Your task to perform on an android device: Go to calendar. Show me events next week Image 0: 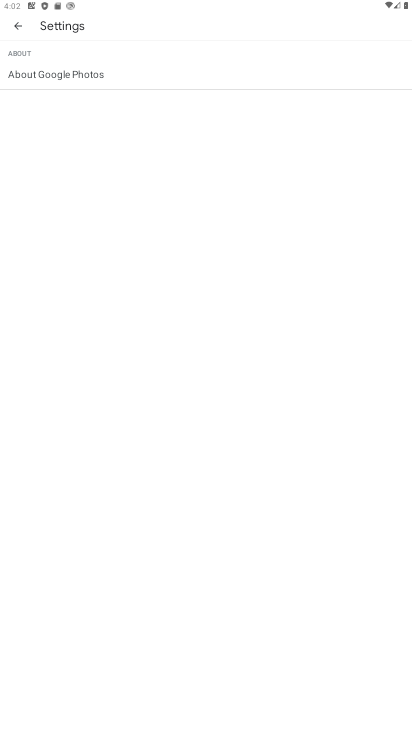
Step 0: press home button
Your task to perform on an android device: Go to calendar. Show me events next week Image 1: 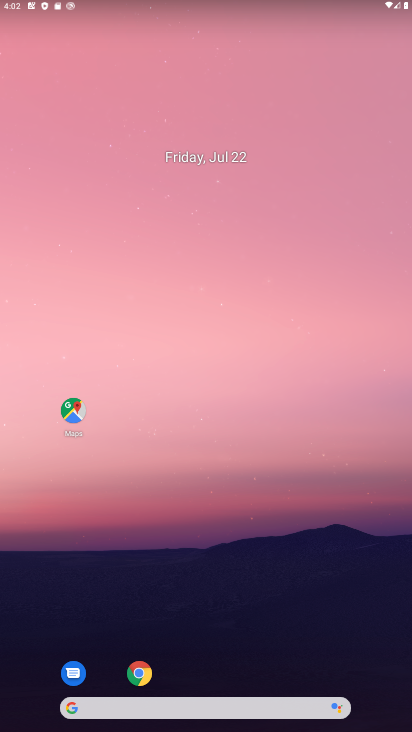
Step 1: drag from (260, 355) to (277, 0)
Your task to perform on an android device: Go to calendar. Show me events next week Image 2: 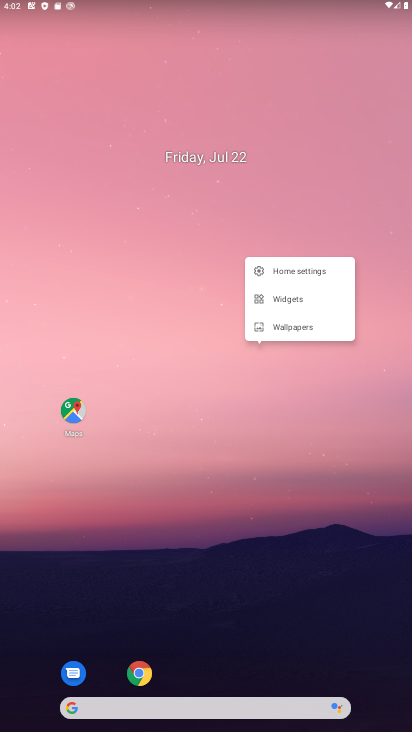
Step 2: click (208, 652)
Your task to perform on an android device: Go to calendar. Show me events next week Image 3: 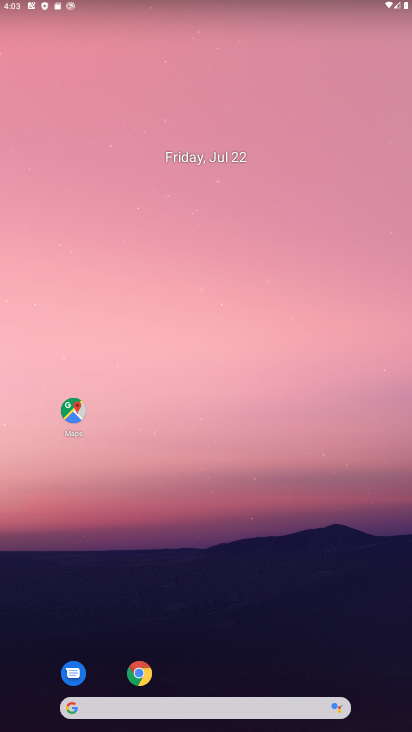
Step 3: drag from (207, 664) to (234, 102)
Your task to perform on an android device: Go to calendar. Show me events next week Image 4: 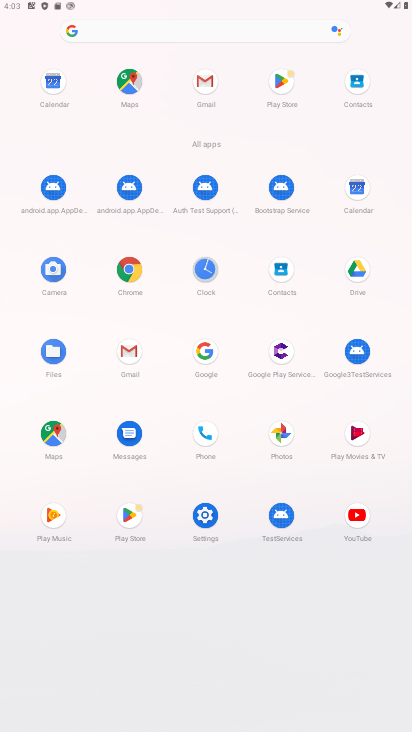
Step 4: click (328, 517)
Your task to perform on an android device: Go to calendar. Show me events next week Image 5: 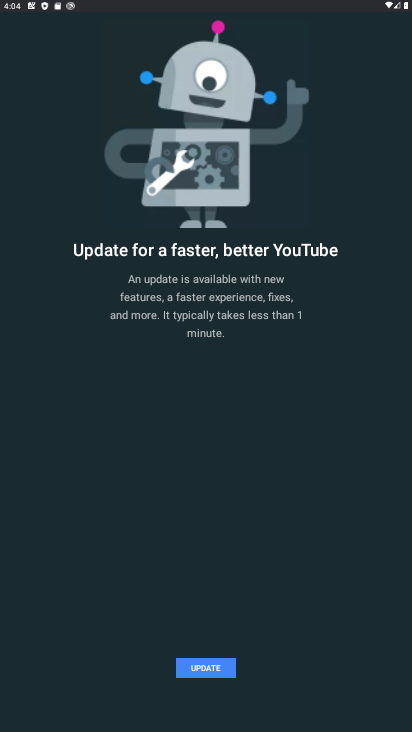
Step 5: press home button
Your task to perform on an android device: Go to calendar. Show me events next week Image 6: 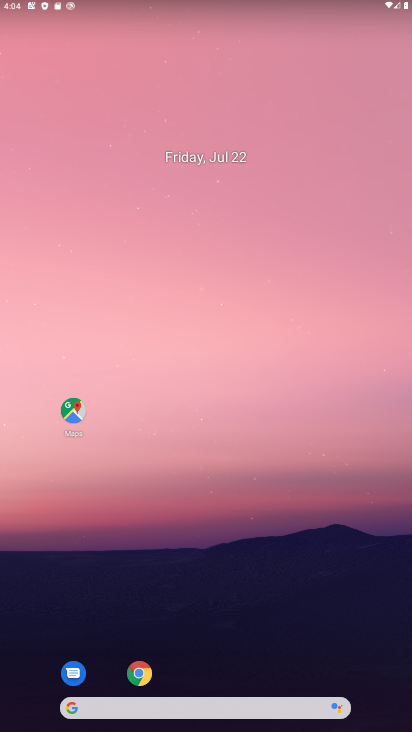
Step 6: drag from (214, 641) to (197, 156)
Your task to perform on an android device: Go to calendar. Show me events next week Image 7: 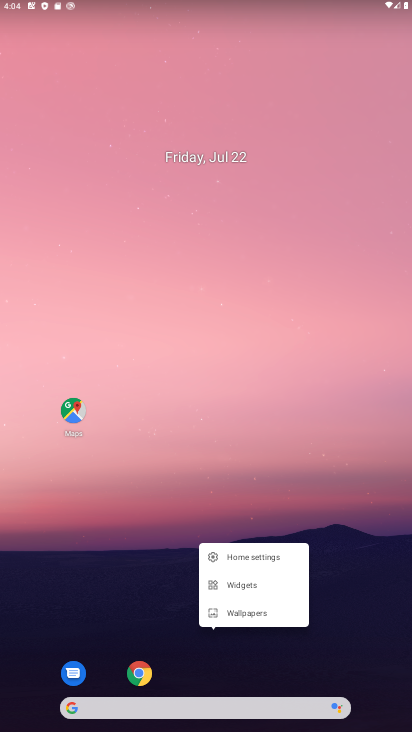
Step 7: drag from (217, 608) to (236, 121)
Your task to perform on an android device: Go to calendar. Show me events next week Image 8: 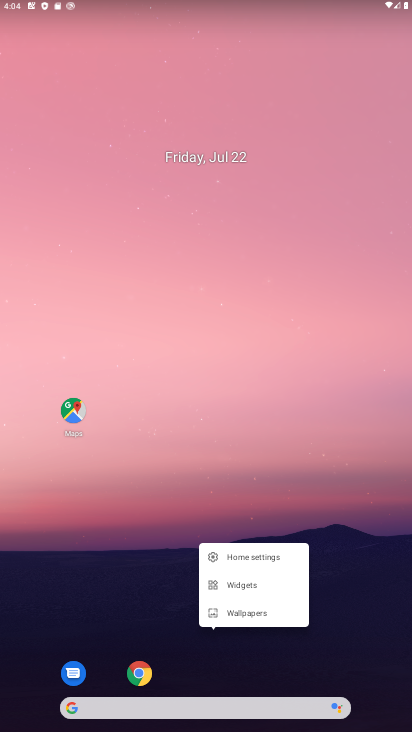
Step 8: drag from (151, 611) to (212, 97)
Your task to perform on an android device: Go to calendar. Show me events next week Image 9: 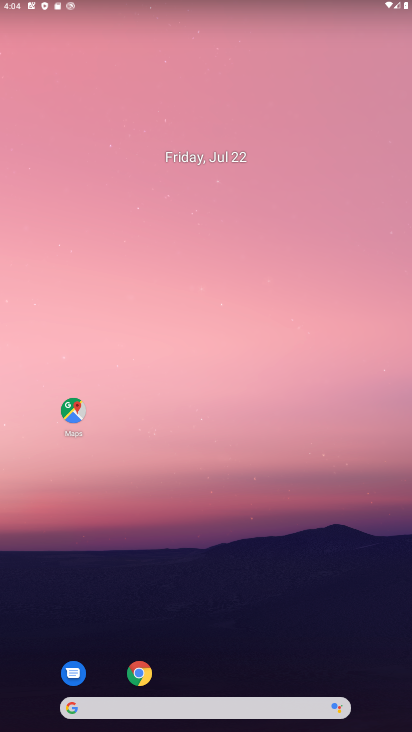
Step 9: drag from (235, 656) to (263, 29)
Your task to perform on an android device: Go to calendar. Show me events next week Image 10: 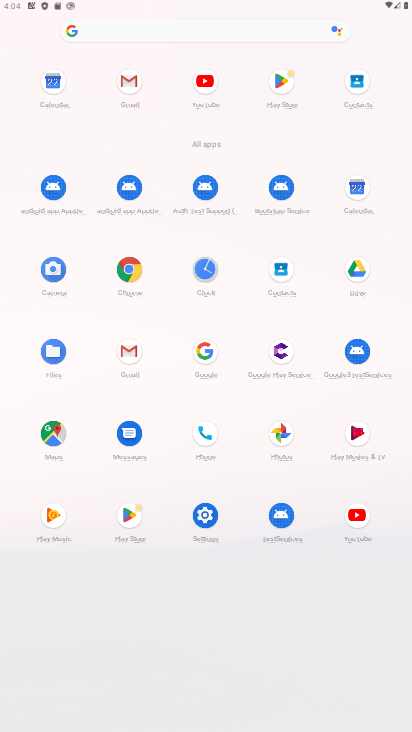
Step 10: click (359, 183)
Your task to perform on an android device: Go to calendar. Show me events next week Image 11: 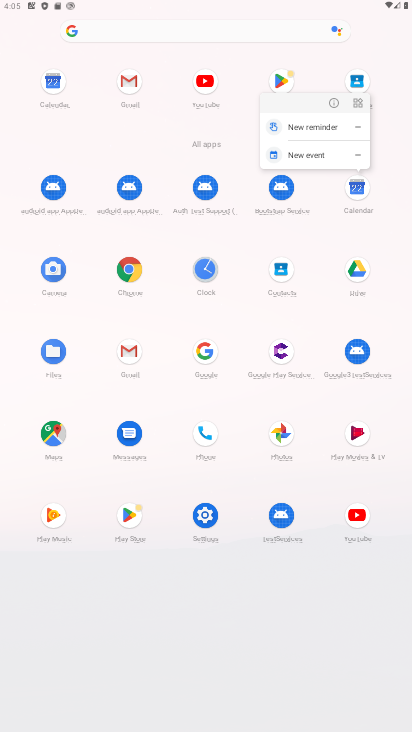
Step 11: click (359, 187)
Your task to perform on an android device: Go to calendar. Show me events next week Image 12: 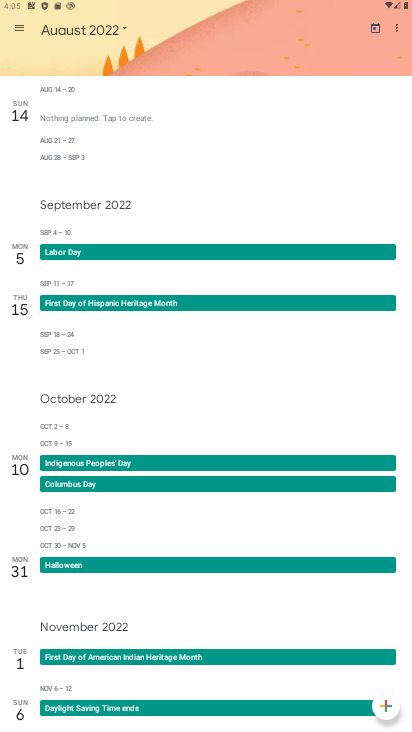
Step 12: click (354, 189)
Your task to perform on an android device: Go to calendar. Show me events next week Image 13: 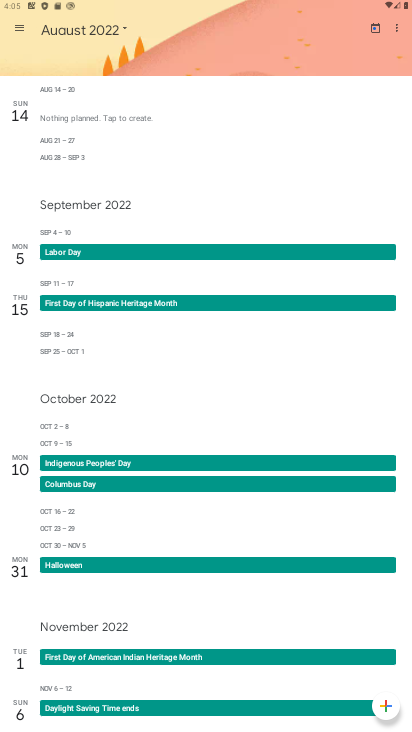
Step 13: click (357, 185)
Your task to perform on an android device: Go to calendar. Show me events next week Image 14: 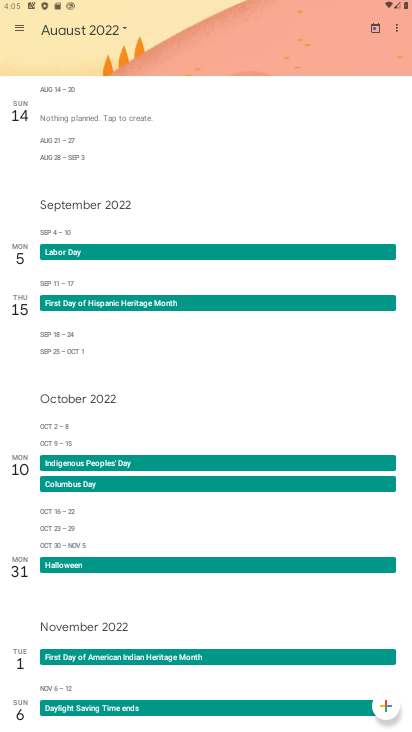
Step 14: click (16, 23)
Your task to perform on an android device: Go to calendar. Show me events next week Image 15: 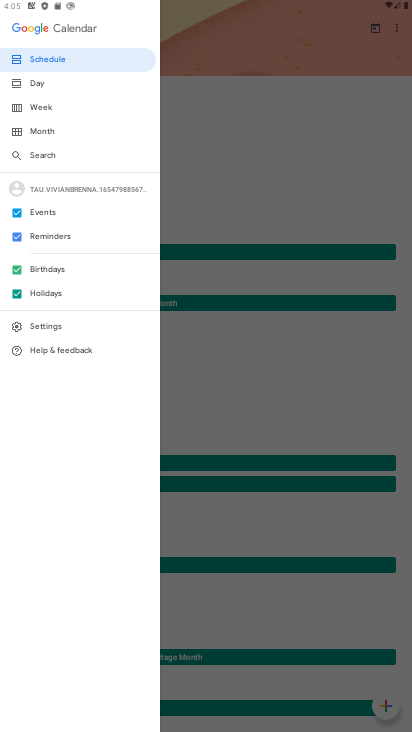
Step 15: click (35, 106)
Your task to perform on an android device: Go to calendar. Show me events next week Image 16: 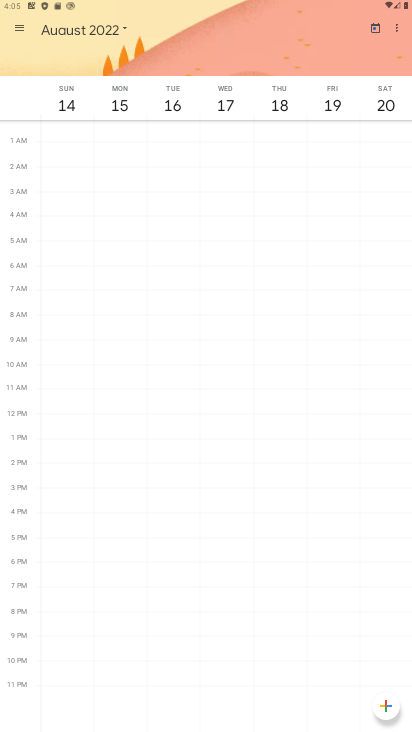
Step 16: click (15, 25)
Your task to perform on an android device: Go to calendar. Show me events next week Image 17: 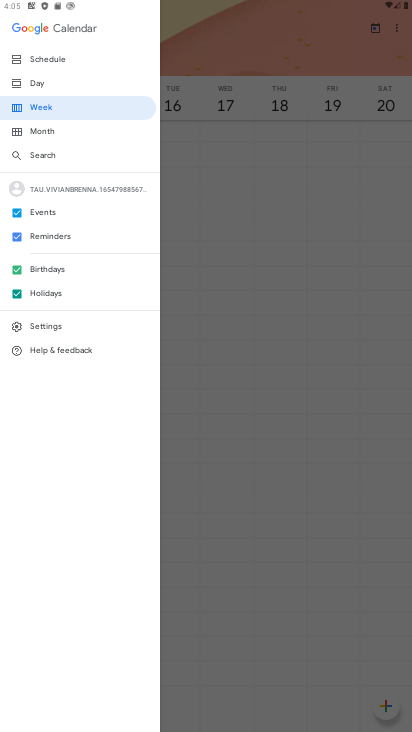
Step 17: click (13, 233)
Your task to perform on an android device: Go to calendar. Show me events next week Image 18: 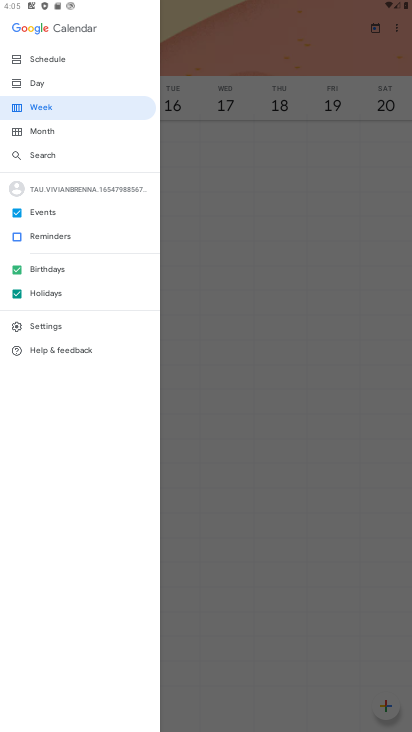
Step 18: click (15, 262)
Your task to perform on an android device: Go to calendar. Show me events next week Image 19: 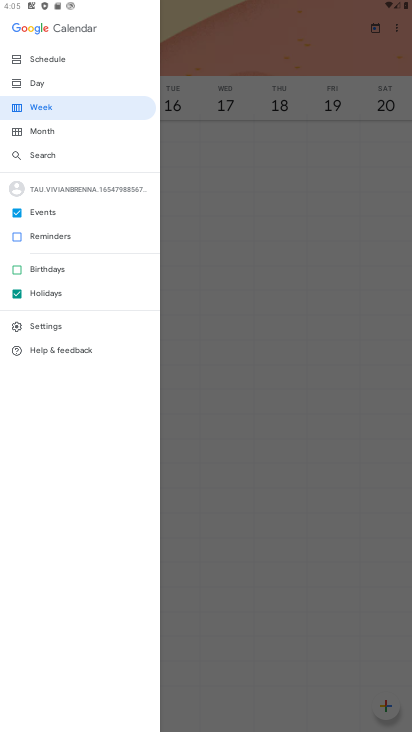
Step 19: click (13, 290)
Your task to perform on an android device: Go to calendar. Show me events next week Image 20: 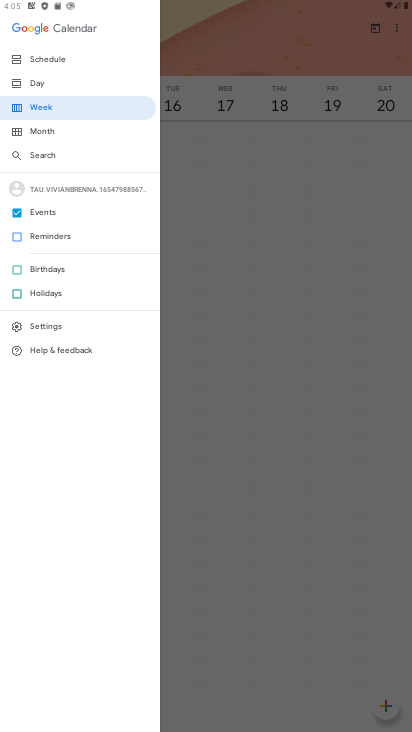
Step 20: click (55, 54)
Your task to perform on an android device: Go to calendar. Show me events next week Image 21: 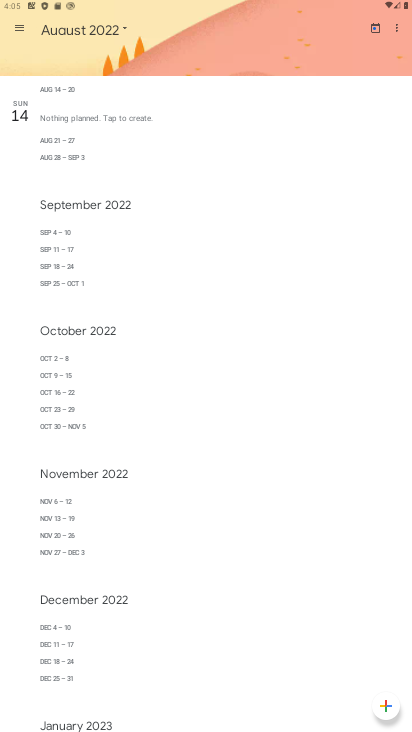
Step 21: click (122, 21)
Your task to perform on an android device: Go to calendar. Show me events next week Image 22: 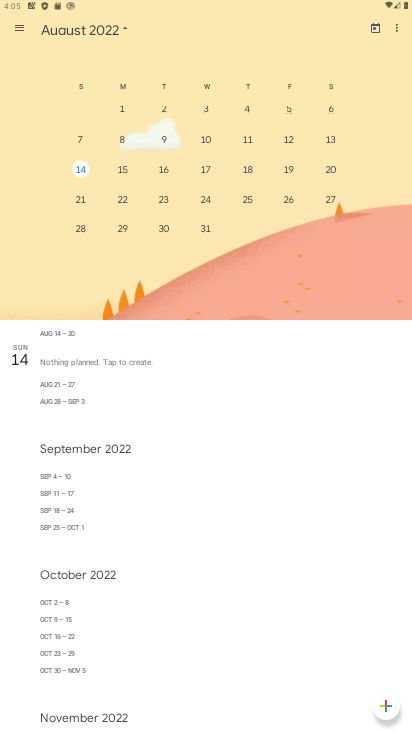
Step 22: drag from (82, 188) to (384, 176)
Your task to perform on an android device: Go to calendar. Show me events next week Image 23: 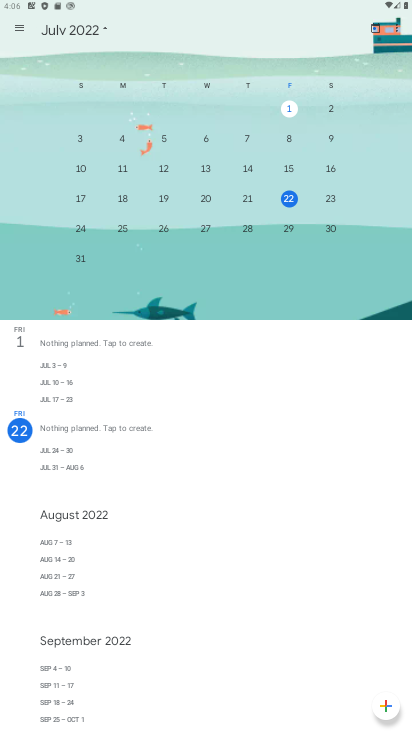
Step 23: click (288, 194)
Your task to perform on an android device: Go to calendar. Show me events next week Image 24: 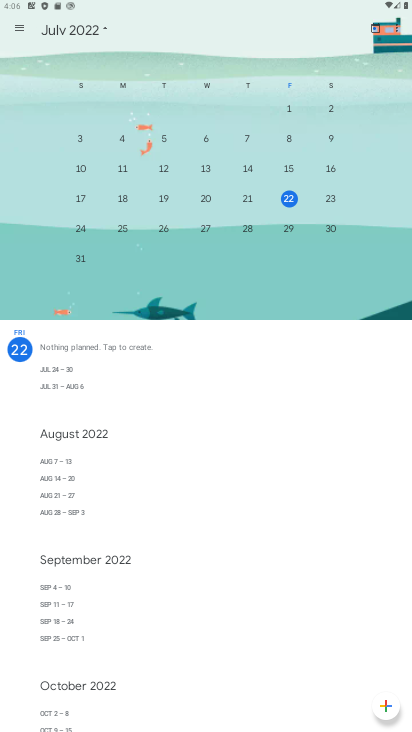
Step 24: task complete